Your task to perform on an android device: Search for a new eyeshadow on Sephora Image 0: 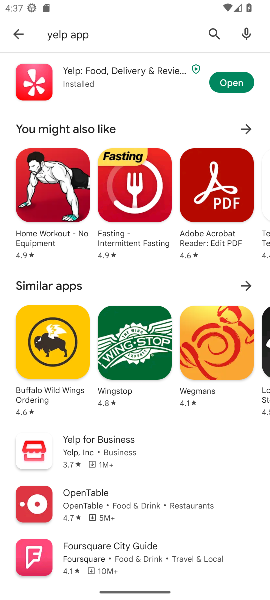
Step 0: press home button
Your task to perform on an android device: Search for a new eyeshadow on Sephora Image 1: 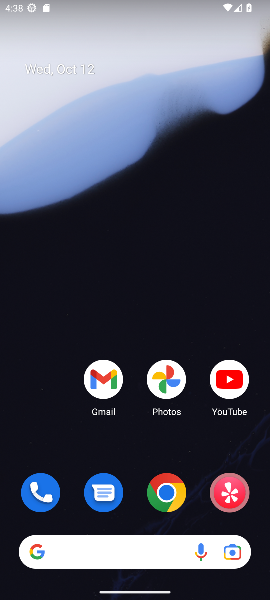
Step 1: click (168, 502)
Your task to perform on an android device: Search for a new eyeshadow on Sephora Image 2: 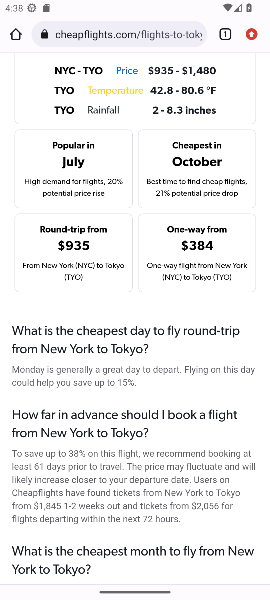
Step 2: click (73, 39)
Your task to perform on an android device: Search for a new eyeshadow on Sephora Image 3: 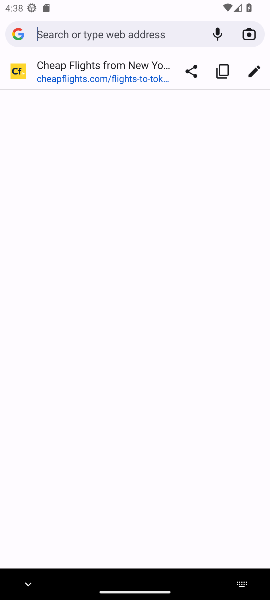
Step 3: type "new eyeshadow on Sephora"
Your task to perform on an android device: Search for a new eyeshadow on Sephora Image 4: 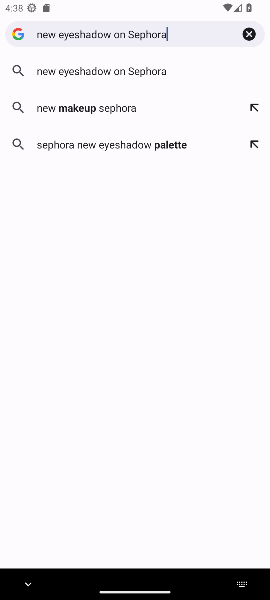
Step 4: click (108, 76)
Your task to perform on an android device: Search for a new eyeshadow on Sephora Image 5: 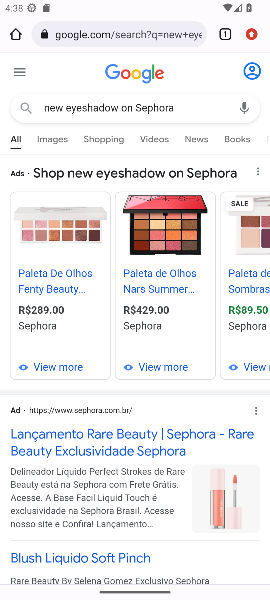
Step 5: task complete